Your task to perform on an android device: toggle javascript in the chrome app Image 0: 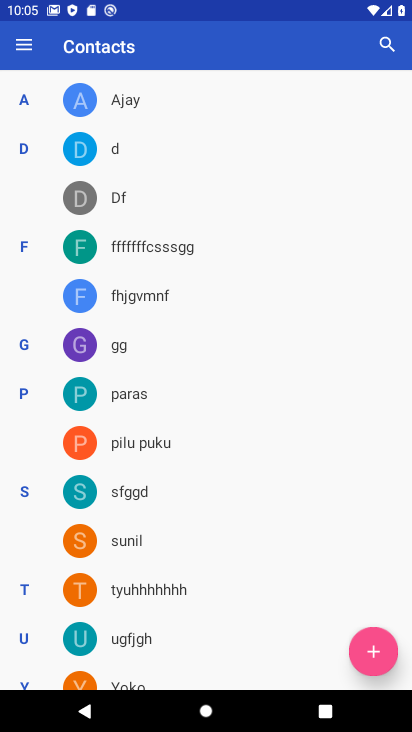
Step 0: press home button
Your task to perform on an android device: toggle javascript in the chrome app Image 1: 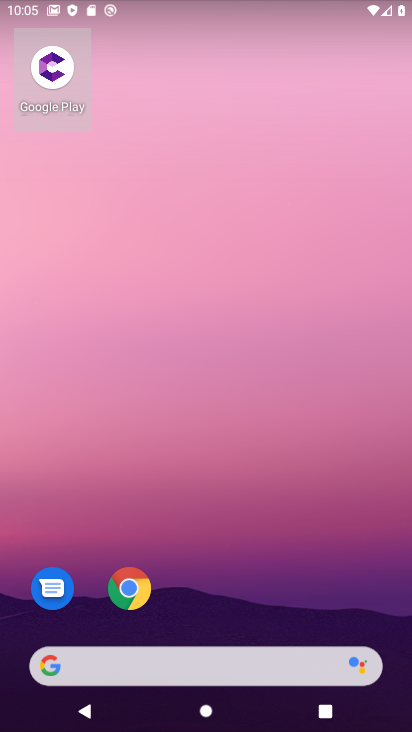
Step 1: click (135, 592)
Your task to perform on an android device: toggle javascript in the chrome app Image 2: 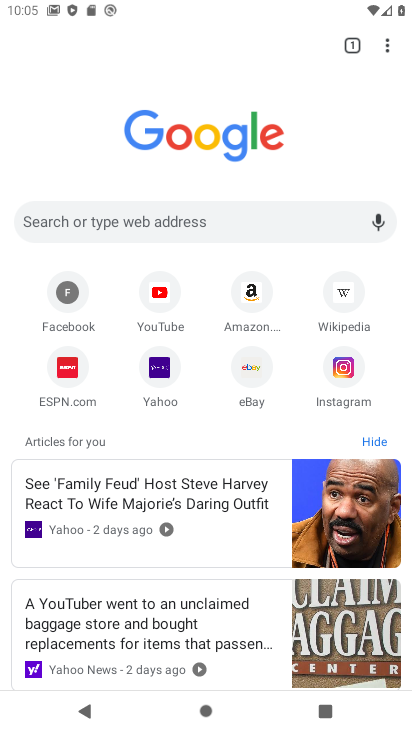
Step 2: drag from (384, 39) to (275, 376)
Your task to perform on an android device: toggle javascript in the chrome app Image 3: 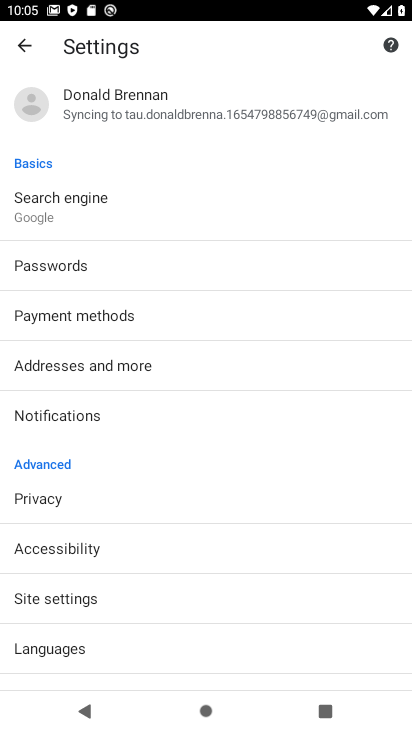
Step 3: click (109, 604)
Your task to perform on an android device: toggle javascript in the chrome app Image 4: 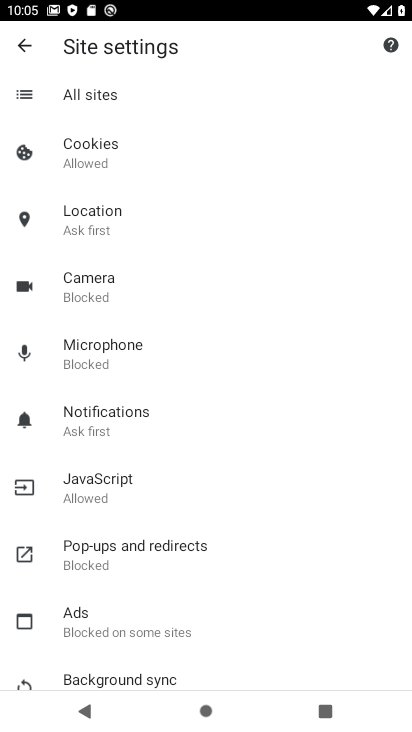
Step 4: click (131, 490)
Your task to perform on an android device: toggle javascript in the chrome app Image 5: 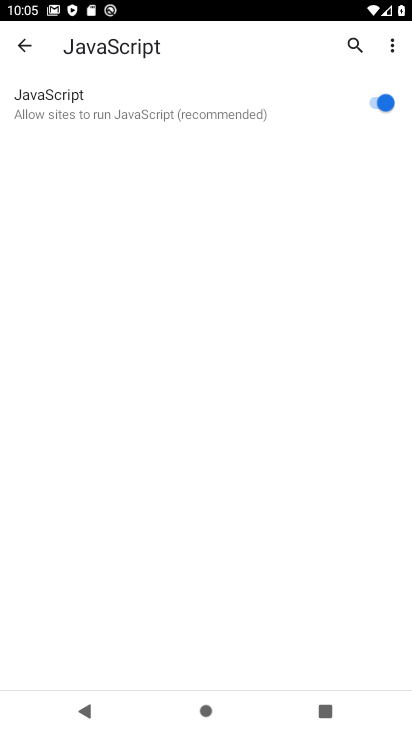
Step 5: click (371, 100)
Your task to perform on an android device: toggle javascript in the chrome app Image 6: 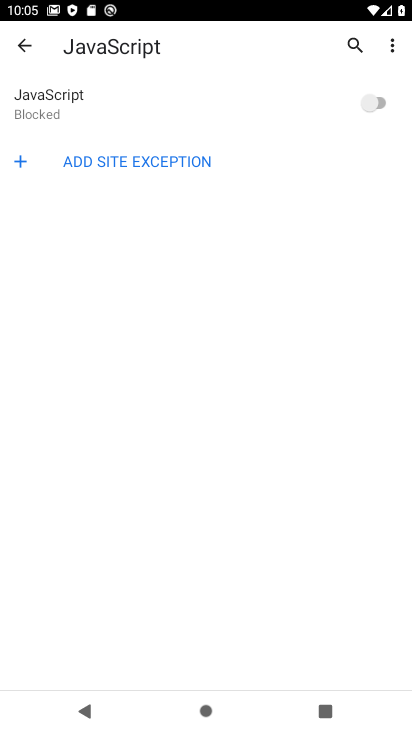
Step 6: task complete